Your task to perform on an android device: Go to Yahoo.com Image 0: 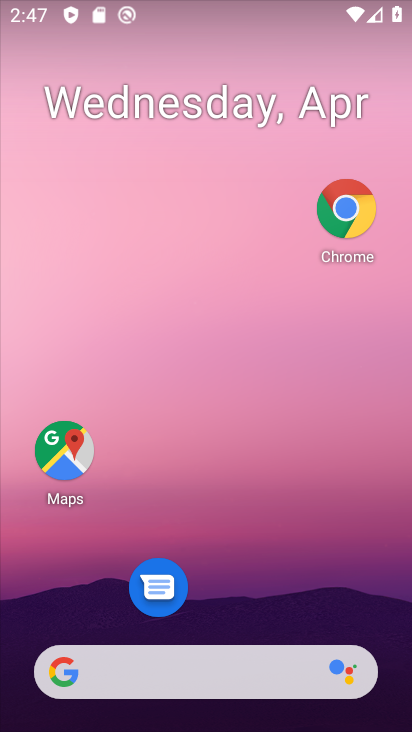
Step 0: click (218, 665)
Your task to perform on an android device: Go to Yahoo.com Image 1: 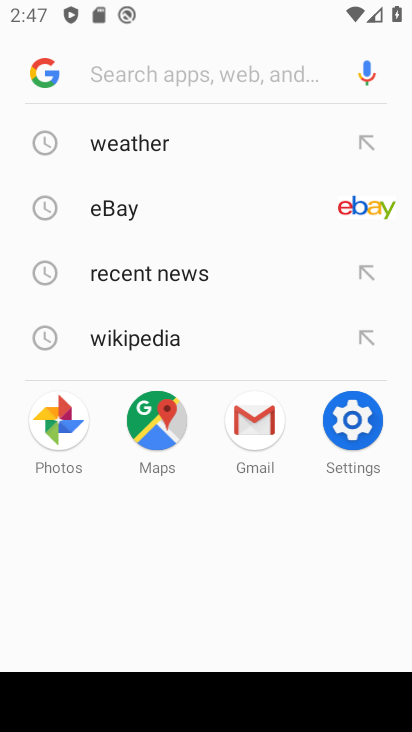
Step 1: type "Yahoo.com"
Your task to perform on an android device: Go to Yahoo.com Image 2: 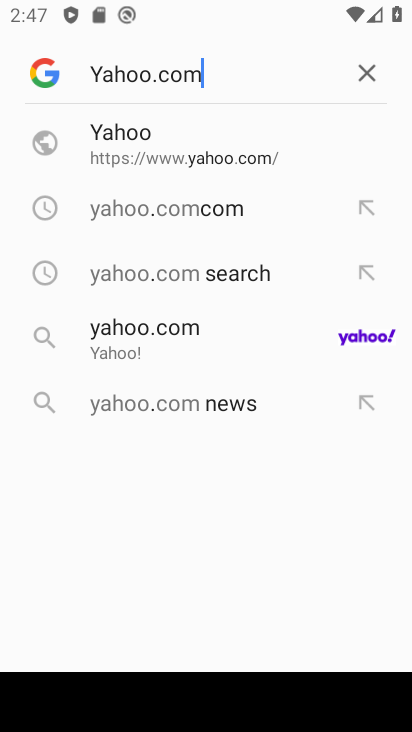
Step 2: click (168, 162)
Your task to perform on an android device: Go to Yahoo.com Image 3: 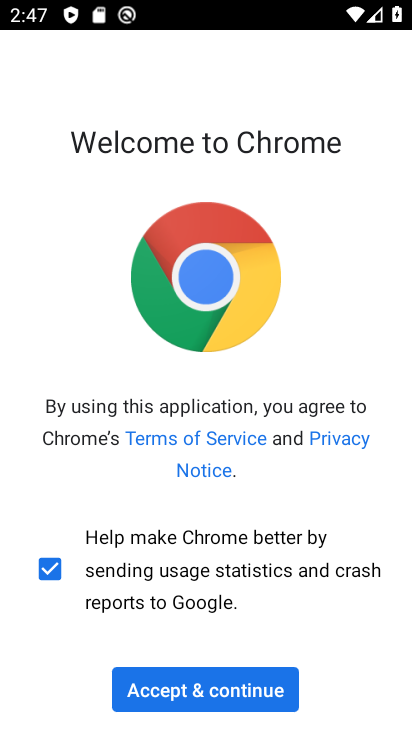
Step 3: click (184, 689)
Your task to perform on an android device: Go to Yahoo.com Image 4: 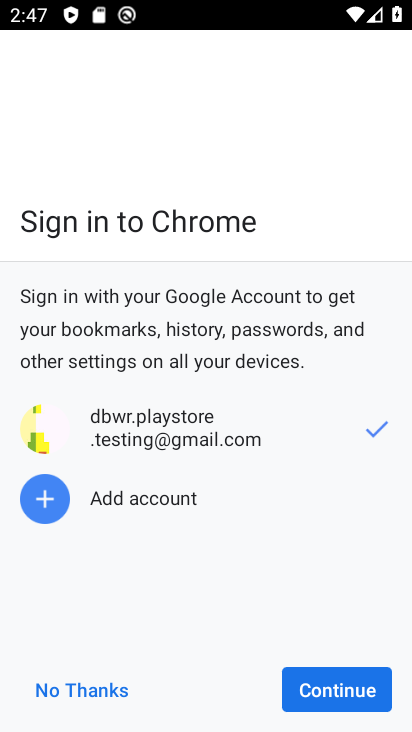
Step 4: click (355, 687)
Your task to perform on an android device: Go to Yahoo.com Image 5: 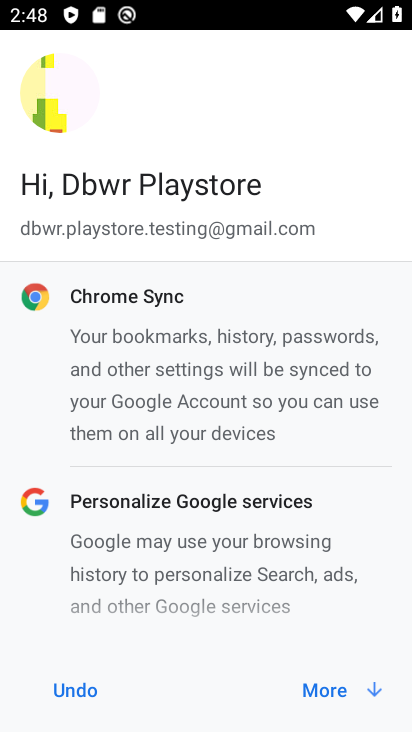
Step 5: click (330, 681)
Your task to perform on an android device: Go to Yahoo.com Image 6: 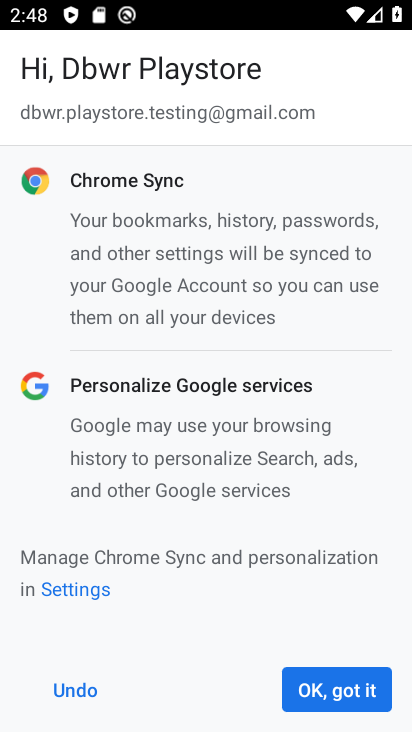
Step 6: click (320, 699)
Your task to perform on an android device: Go to Yahoo.com Image 7: 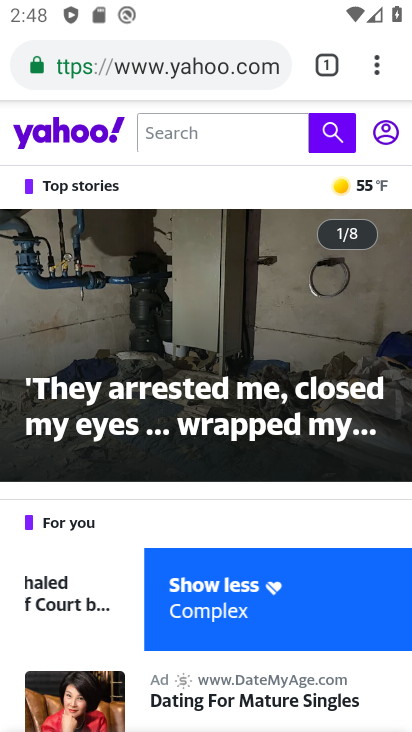
Step 7: task complete